Your task to perform on an android device: set the timer Image 0: 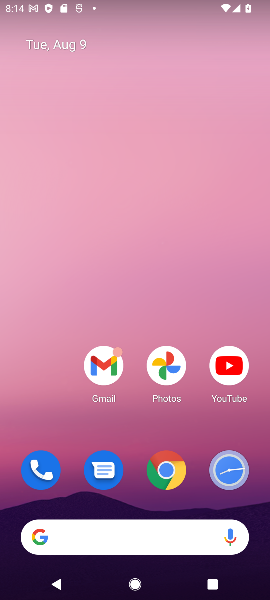
Step 0: drag from (132, 499) to (45, 7)
Your task to perform on an android device: set the timer Image 1: 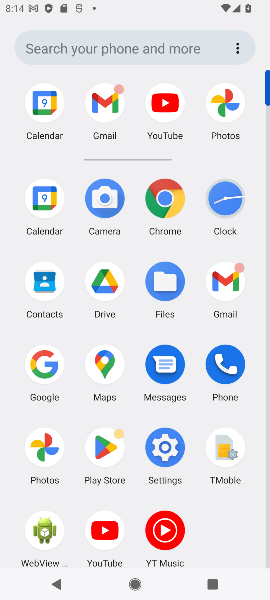
Step 1: click (224, 201)
Your task to perform on an android device: set the timer Image 2: 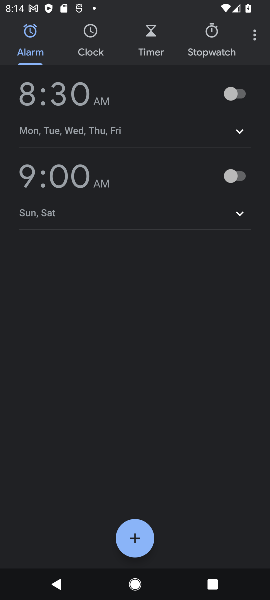
Step 2: click (252, 42)
Your task to perform on an android device: set the timer Image 3: 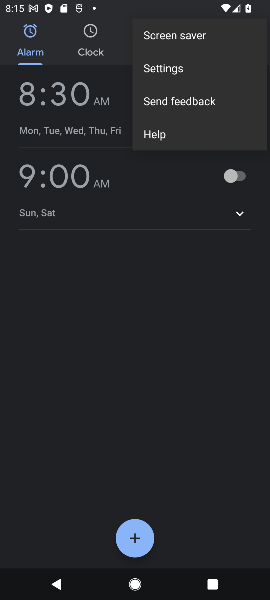
Step 3: click (75, 296)
Your task to perform on an android device: set the timer Image 4: 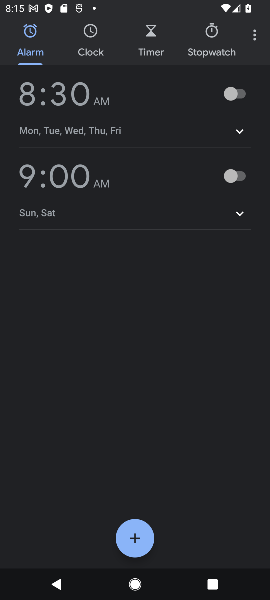
Step 4: click (147, 31)
Your task to perform on an android device: set the timer Image 5: 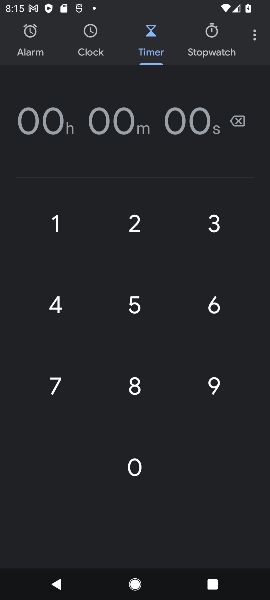
Step 5: click (137, 387)
Your task to perform on an android device: set the timer Image 6: 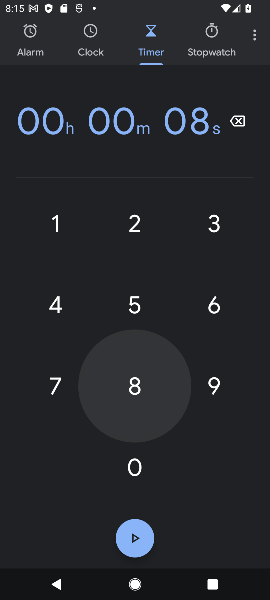
Step 6: click (135, 292)
Your task to perform on an android device: set the timer Image 7: 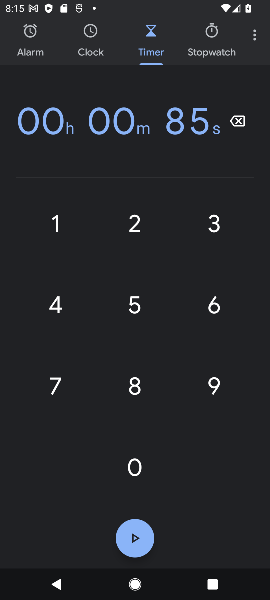
Step 7: click (211, 210)
Your task to perform on an android device: set the timer Image 8: 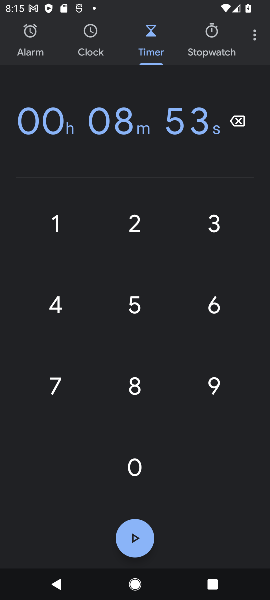
Step 8: click (135, 544)
Your task to perform on an android device: set the timer Image 9: 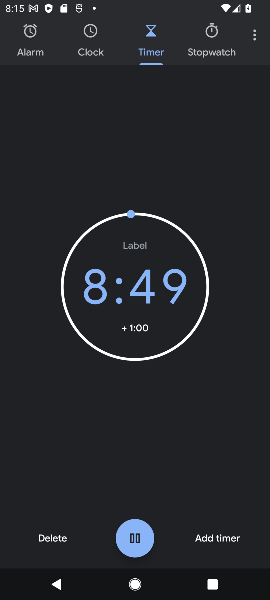
Step 9: task complete